Your task to perform on an android device: Open Amazon Image 0: 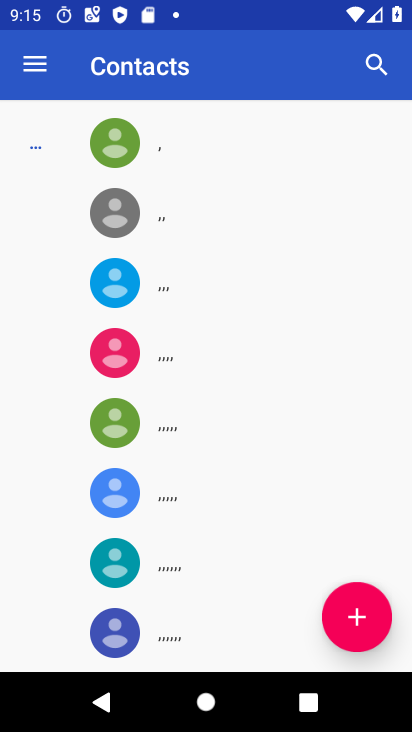
Step 0: press home button
Your task to perform on an android device: Open Amazon Image 1: 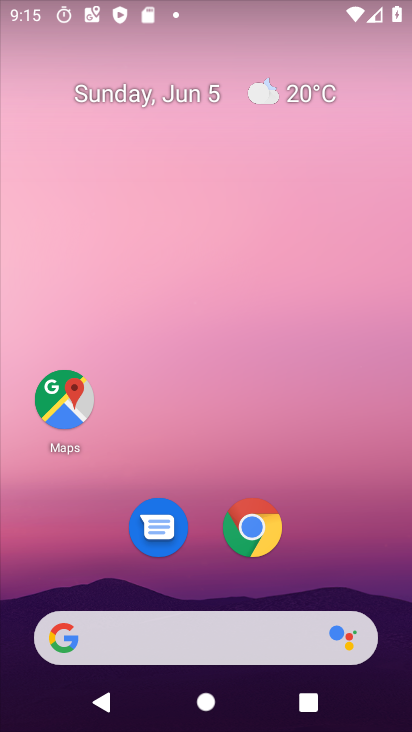
Step 1: drag from (326, 571) to (352, 36)
Your task to perform on an android device: Open Amazon Image 2: 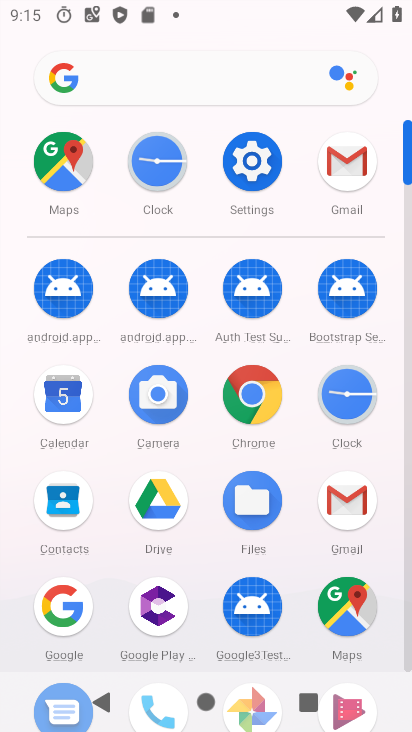
Step 2: click (256, 410)
Your task to perform on an android device: Open Amazon Image 3: 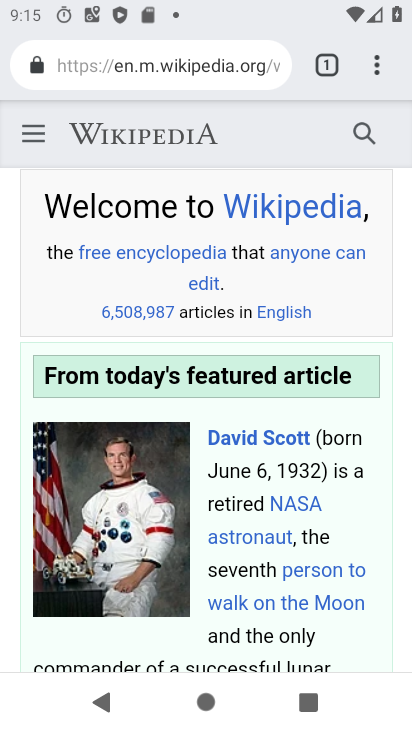
Step 3: click (210, 78)
Your task to perform on an android device: Open Amazon Image 4: 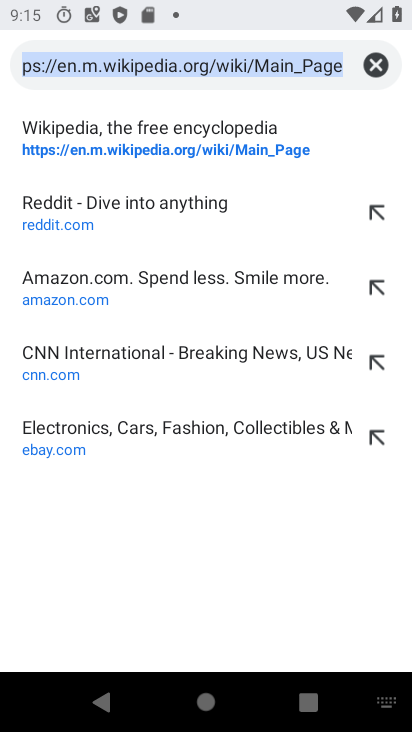
Step 4: click (74, 287)
Your task to perform on an android device: Open Amazon Image 5: 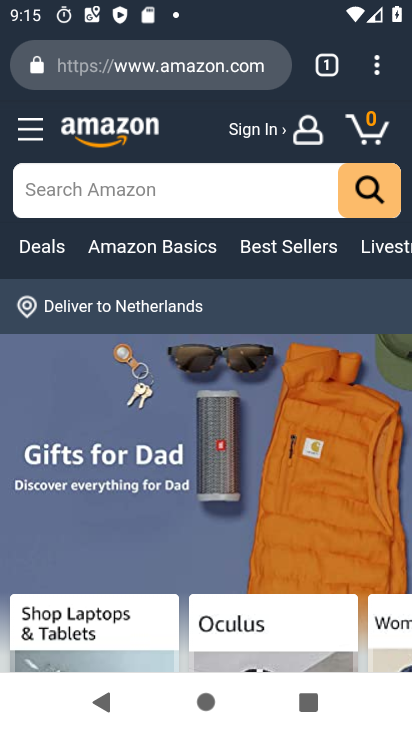
Step 5: task complete